Your task to perform on an android device: turn vacation reply on in the gmail app Image 0: 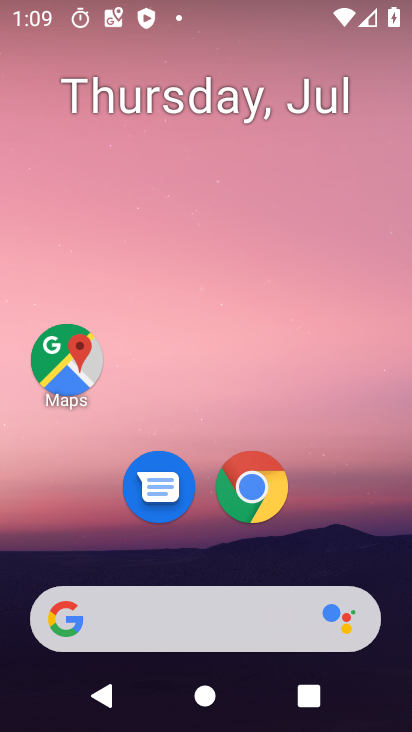
Step 0: drag from (237, 628) to (256, 159)
Your task to perform on an android device: turn vacation reply on in the gmail app Image 1: 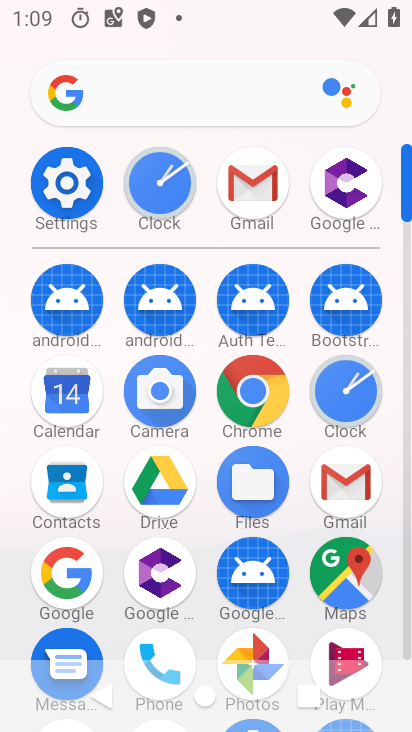
Step 1: click (350, 495)
Your task to perform on an android device: turn vacation reply on in the gmail app Image 2: 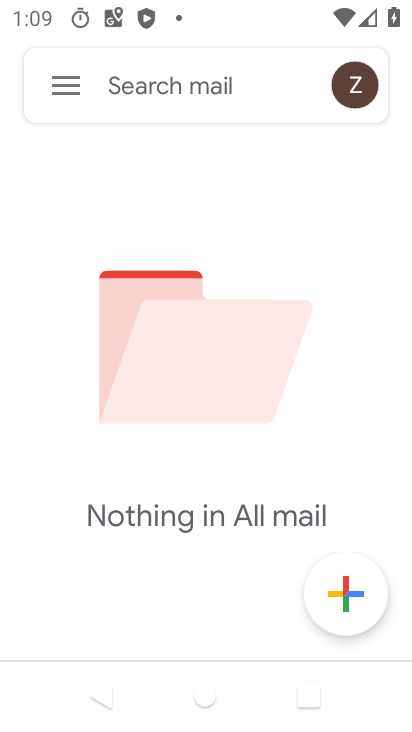
Step 2: click (59, 90)
Your task to perform on an android device: turn vacation reply on in the gmail app Image 3: 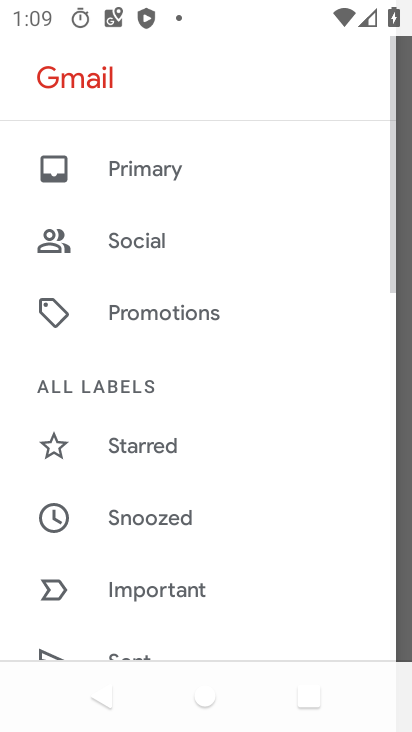
Step 3: drag from (138, 543) to (185, 42)
Your task to perform on an android device: turn vacation reply on in the gmail app Image 4: 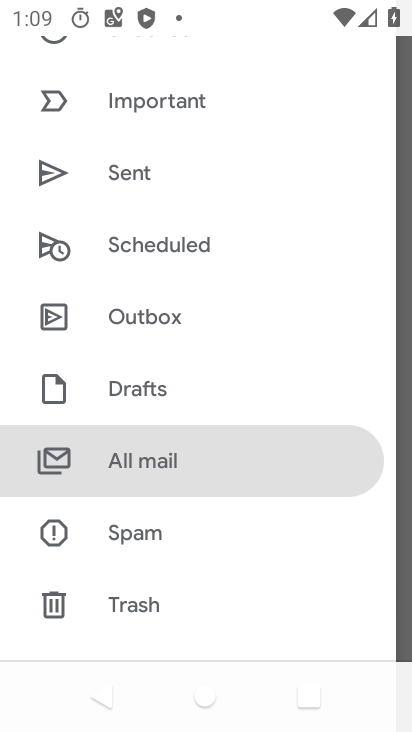
Step 4: drag from (166, 487) to (210, 140)
Your task to perform on an android device: turn vacation reply on in the gmail app Image 5: 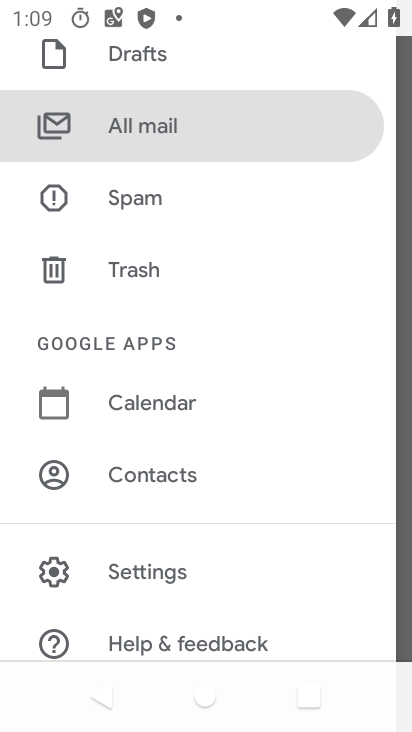
Step 5: click (165, 576)
Your task to perform on an android device: turn vacation reply on in the gmail app Image 6: 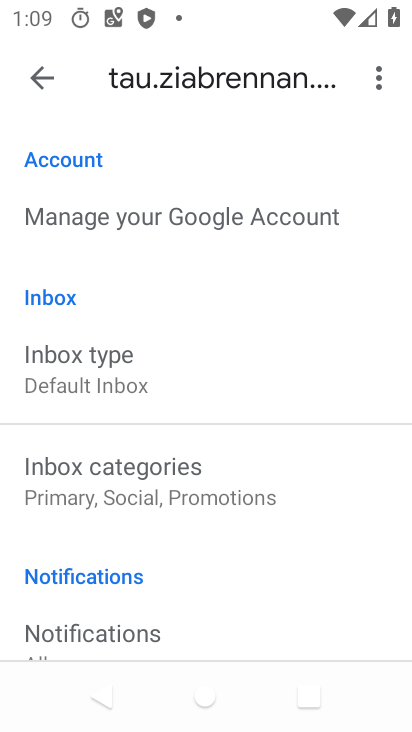
Step 6: drag from (175, 549) to (200, 215)
Your task to perform on an android device: turn vacation reply on in the gmail app Image 7: 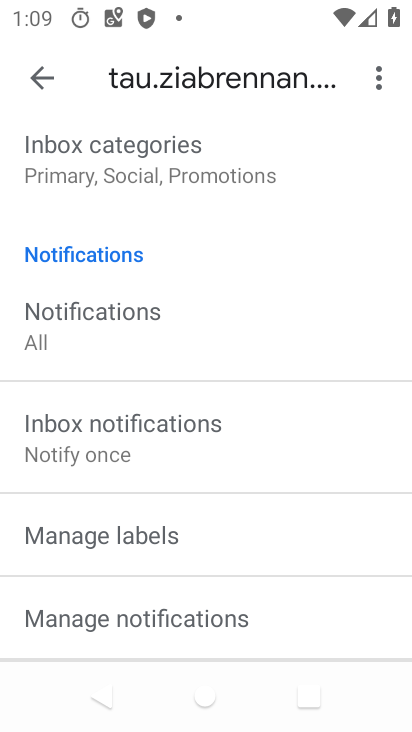
Step 7: drag from (131, 542) to (176, 604)
Your task to perform on an android device: turn vacation reply on in the gmail app Image 8: 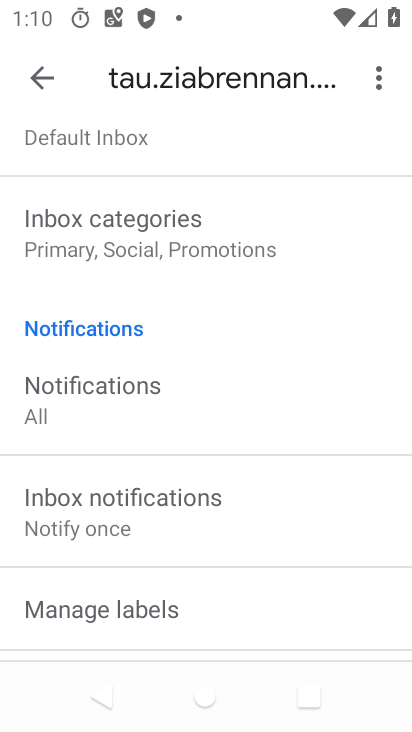
Step 8: drag from (143, 502) to (223, 201)
Your task to perform on an android device: turn vacation reply on in the gmail app Image 9: 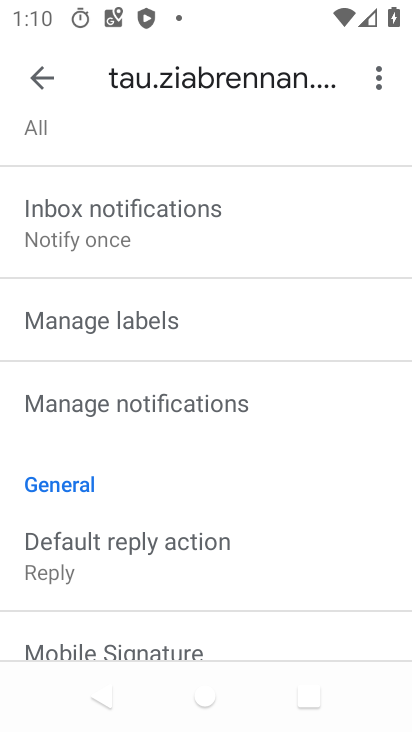
Step 9: drag from (179, 533) to (224, 284)
Your task to perform on an android device: turn vacation reply on in the gmail app Image 10: 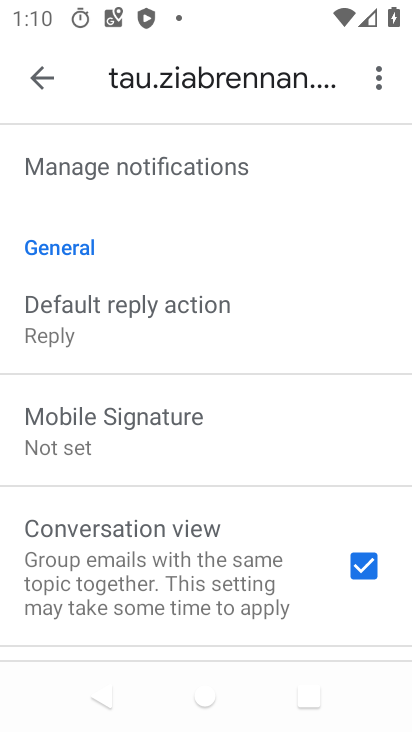
Step 10: drag from (178, 401) to (183, 311)
Your task to perform on an android device: turn vacation reply on in the gmail app Image 11: 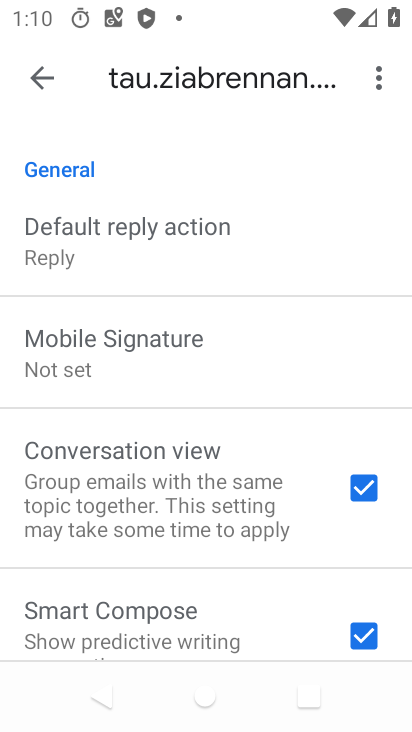
Step 11: drag from (157, 485) to (160, 417)
Your task to perform on an android device: turn vacation reply on in the gmail app Image 12: 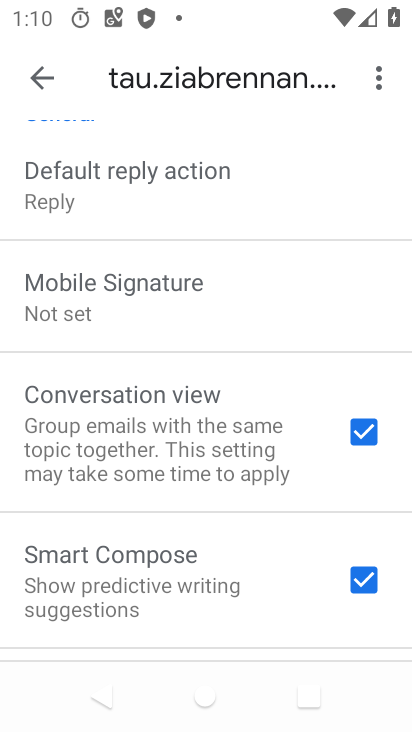
Step 12: drag from (258, 556) to (234, 251)
Your task to perform on an android device: turn vacation reply on in the gmail app Image 13: 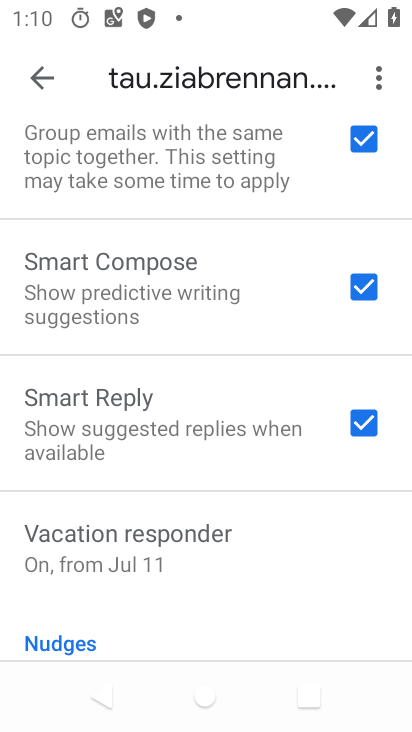
Step 13: click (188, 533)
Your task to perform on an android device: turn vacation reply on in the gmail app Image 14: 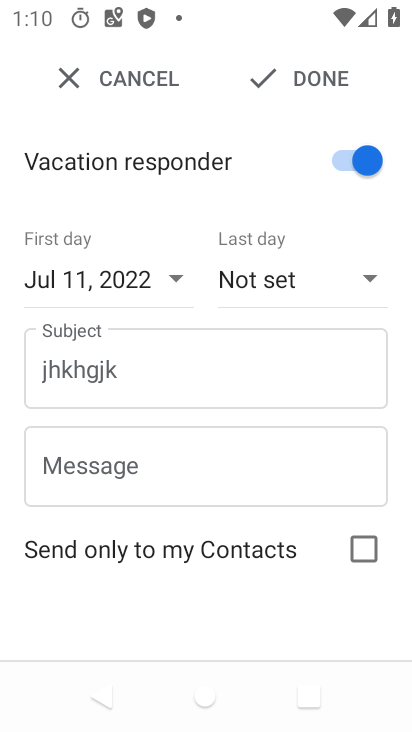
Step 14: task complete